Your task to perform on an android device: turn pop-ups off in chrome Image 0: 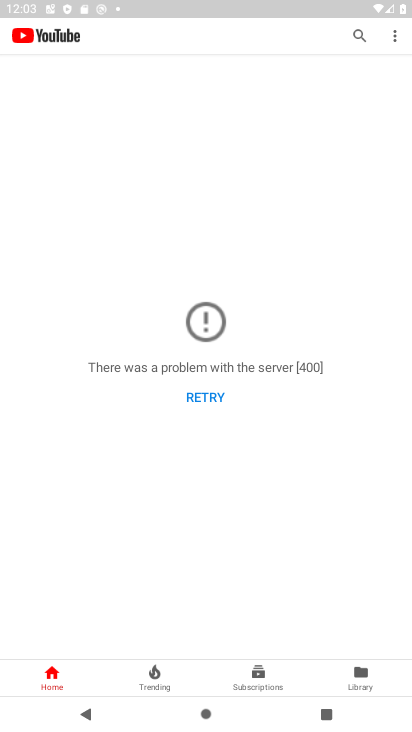
Step 0: press home button
Your task to perform on an android device: turn pop-ups off in chrome Image 1: 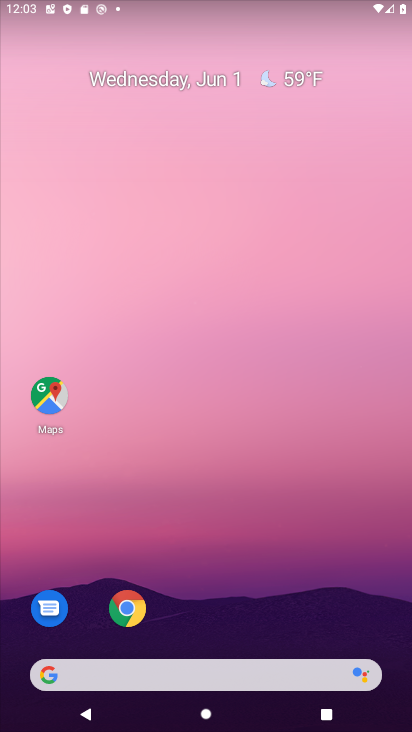
Step 1: drag from (192, 591) to (278, 15)
Your task to perform on an android device: turn pop-ups off in chrome Image 2: 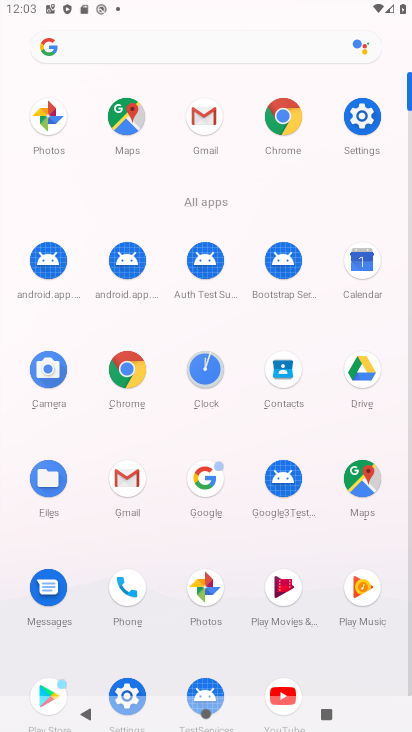
Step 2: click (292, 154)
Your task to perform on an android device: turn pop-ups off in chrome Image 3: 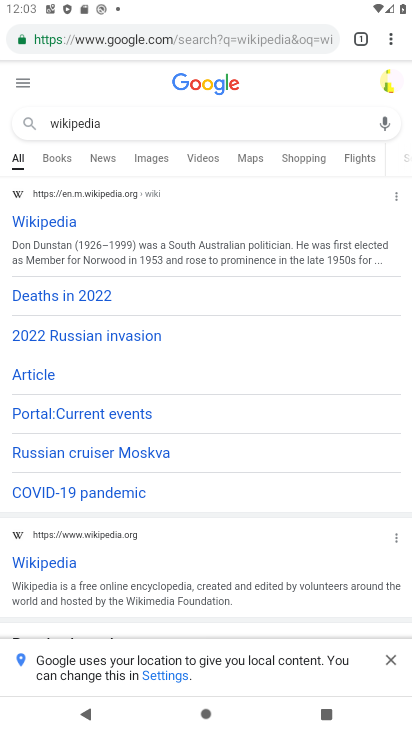
Step 3: click (393, 40)
Your task to perform on an android device: turn pop-ups off in chrome Image 4: 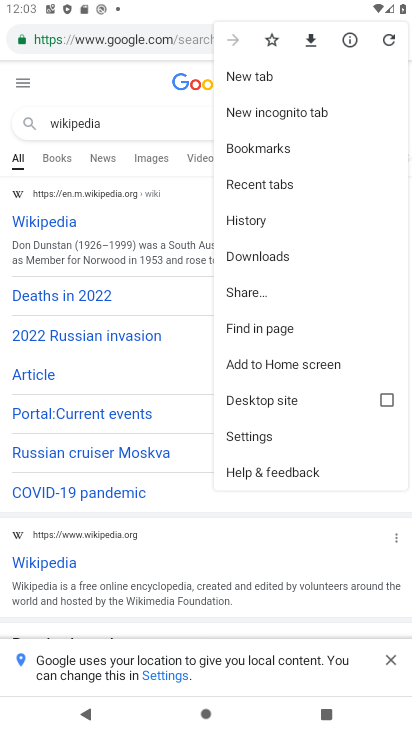
Step 4: click (258, 435)
Your task to perform on an android device: turn pop-ups off in chrome Image 5: 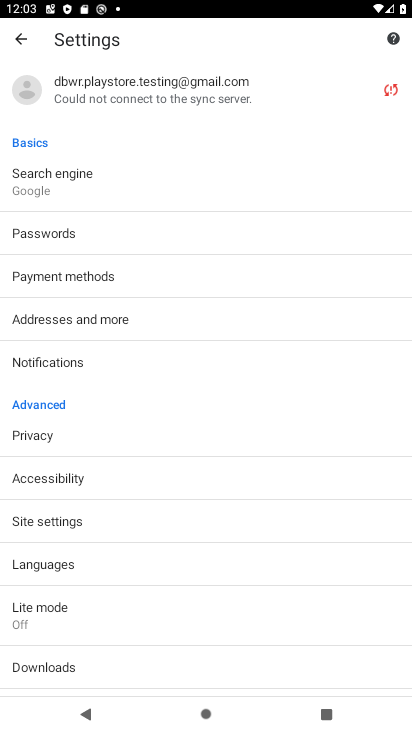
Step 5: click (52, 518)
Your task to perform on an android device: turn pop-ups off in chrome Image 6: 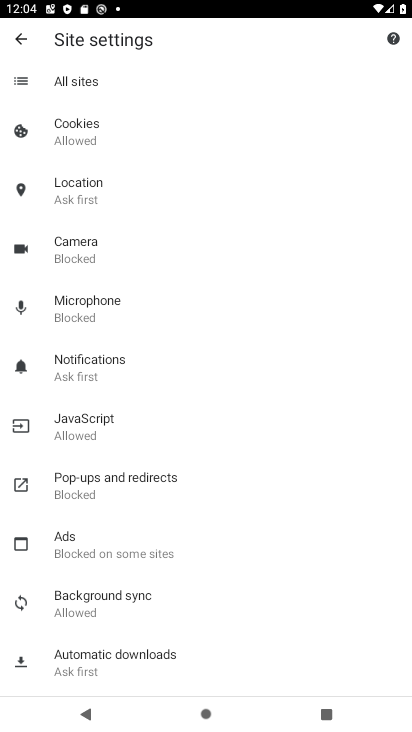
Step 6: click (97, 491)
Your task to perform on an android device: turn pop-ups off in chrome Image 7: 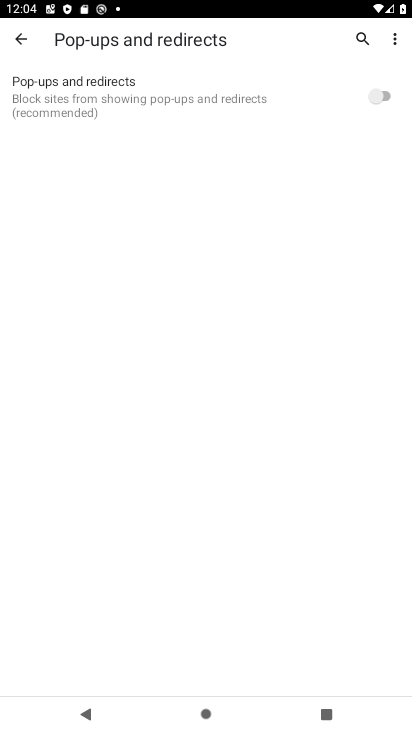
Step 7: task complete